Your task to perform on an android device: Search for Italian restaurants on Maps Image 0: 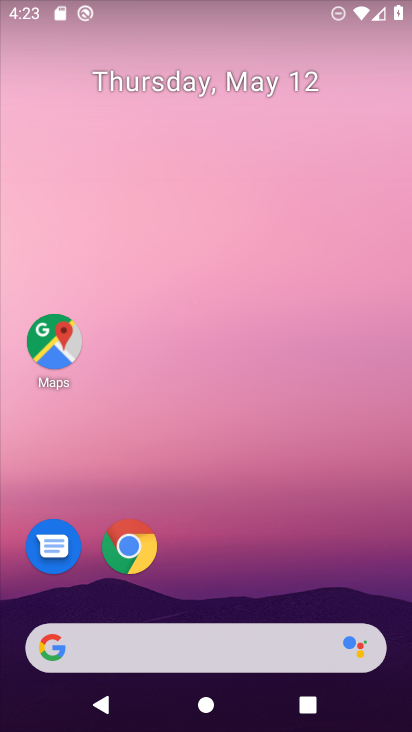
Step 0: click (58, 328)
Your task to perform on an android device: Search for Italian restaurants on Maps Image 1: 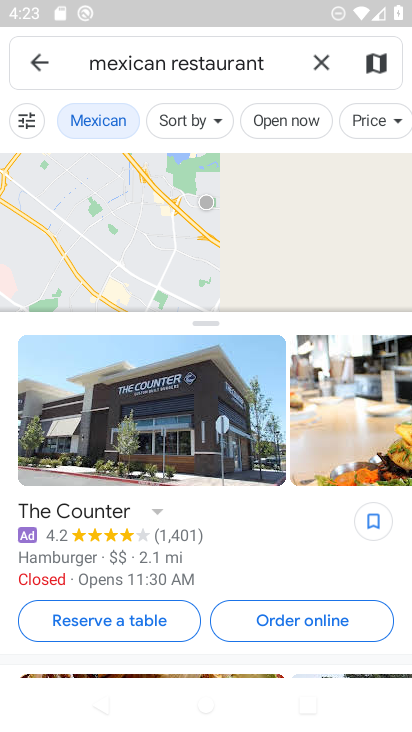
Step 1: click (310, 50)
Your task to perform on an android device: Search for Italian restaurants on Maps Image 2: 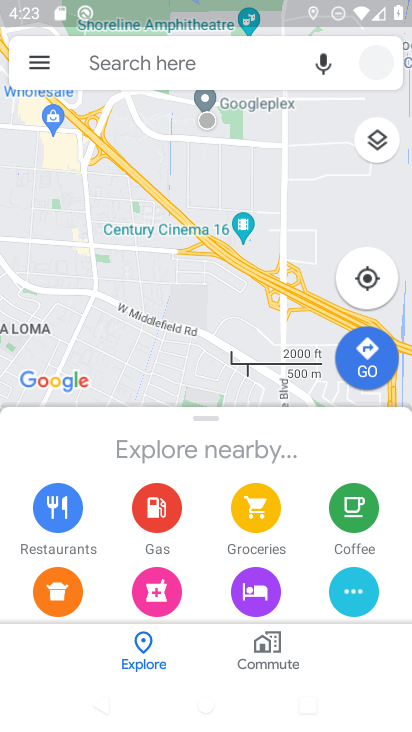
Step 2: click (159, 58)
Your task to perform on an android device: Search for Italian restaurants on Maps Image 3: 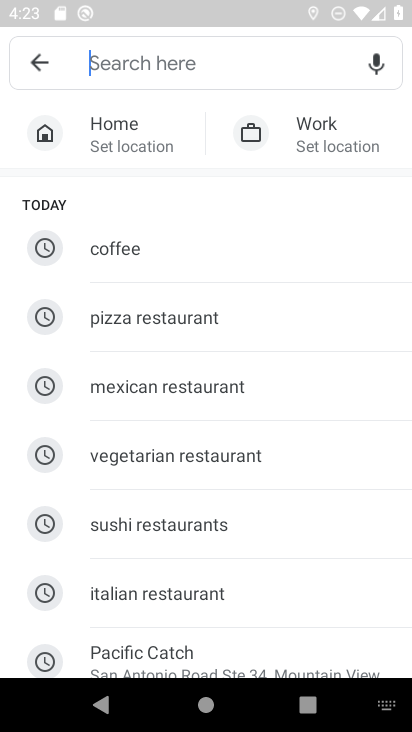
Step 3: click (154, 590)
Your task to perform on an android device: Search for Italian restaurants on Maps Image 4: 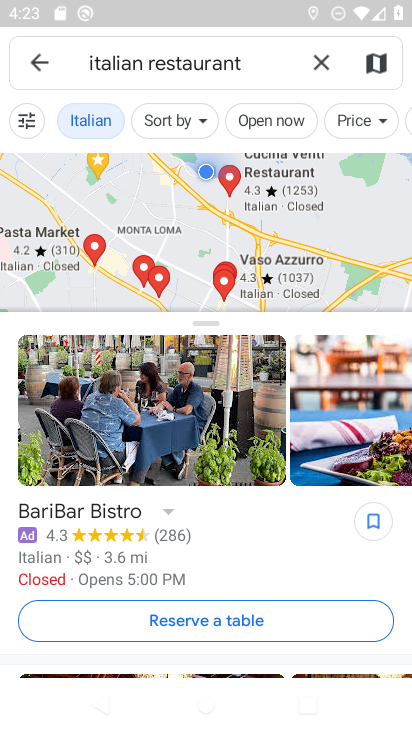
Step 4: task complete